Your task to perform on an android device: Open the calendar app, open the side menu, and click the "Day" option Image 0: 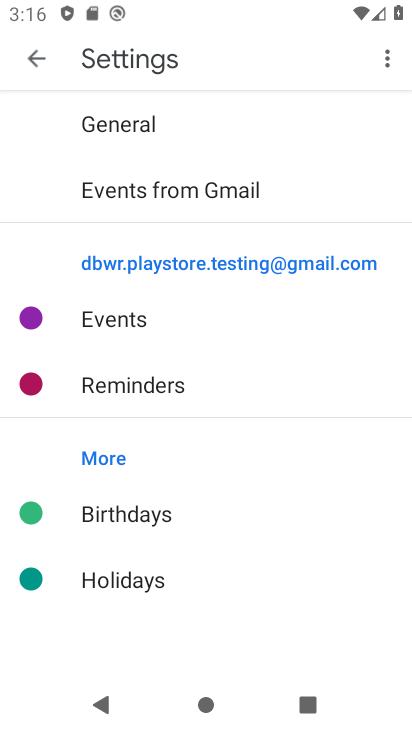
Step 0: press home button
Your task to perform on an android device: Open the calendar app, open the side menu, and click the "Day" option Image 1: 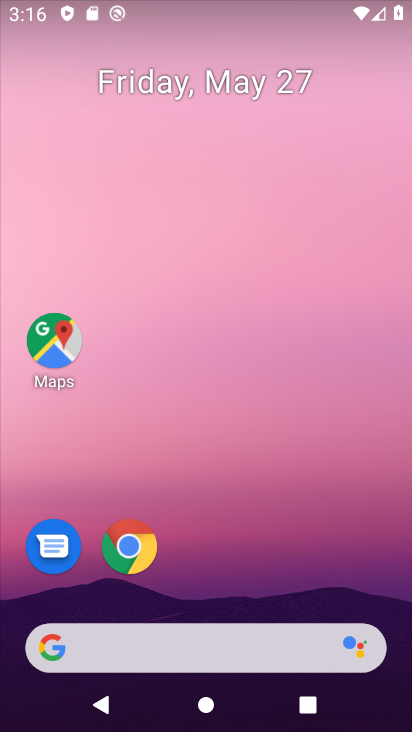
Step 1: drag from (200, 600) to (290, 103)
Your task to perform on an android device: Open the calendar app, open the side menu, and click the "Day" option Image 2: 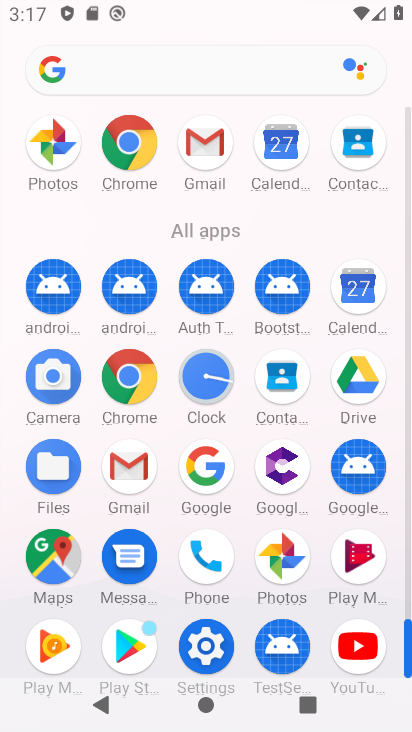
Step 2: click (362, 296)
Your task to perform on an android device: Open the calendar app, open the side menu, and click the "Day" option Image 3: 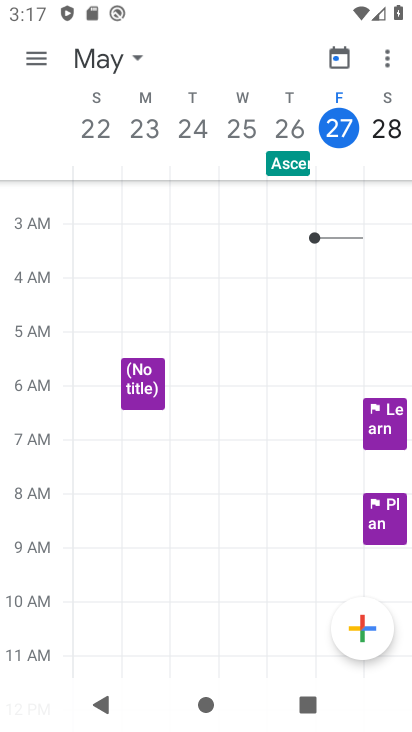
Step 3: click (60, 66)
Your task to perform on an android device: Open the calendar app, open the side menu, and click the "Day" option Image 4: 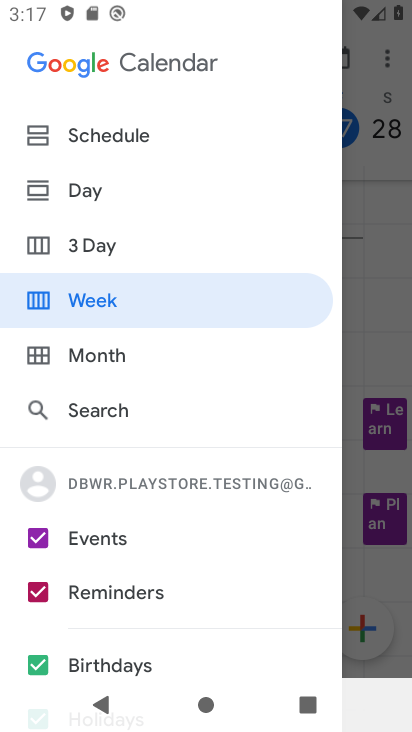
Step 4: click (110, 191)
Your task to perform on an android device: Open the calendar app, open the side menu, and click the "Day" option Image 5: 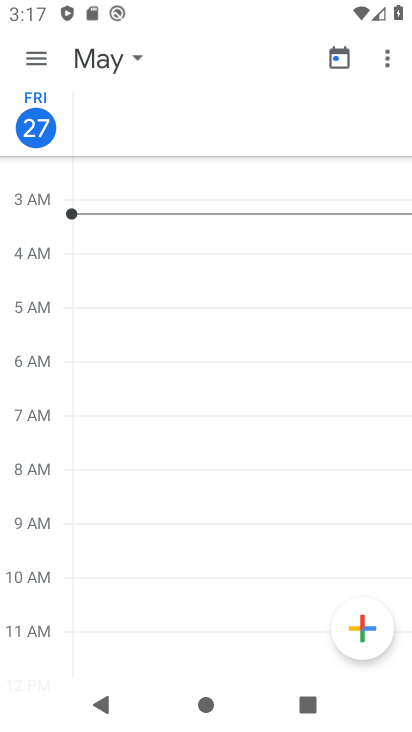
Step 5: task complete